Your task to perform on an android device: Open maps Image 0: 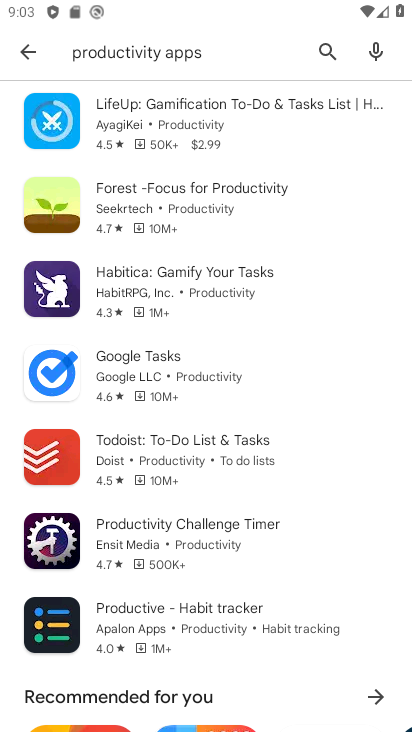
Step 0: press home button
Your task to perform on an android device: Open maps Image 1: 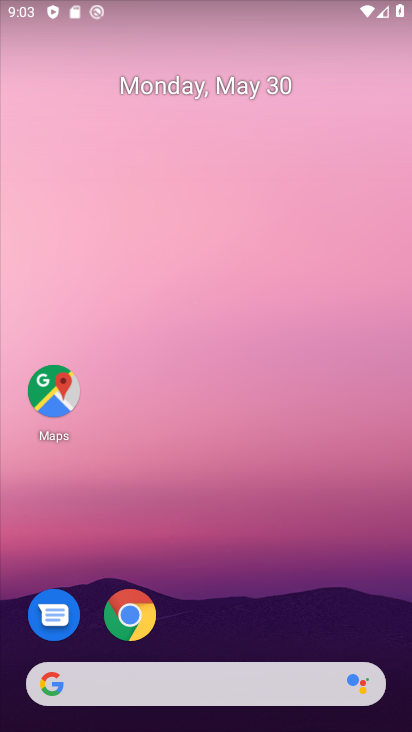
Step 1: click (47, 384)
Your task to perform on an android device: Open maps Image 2: 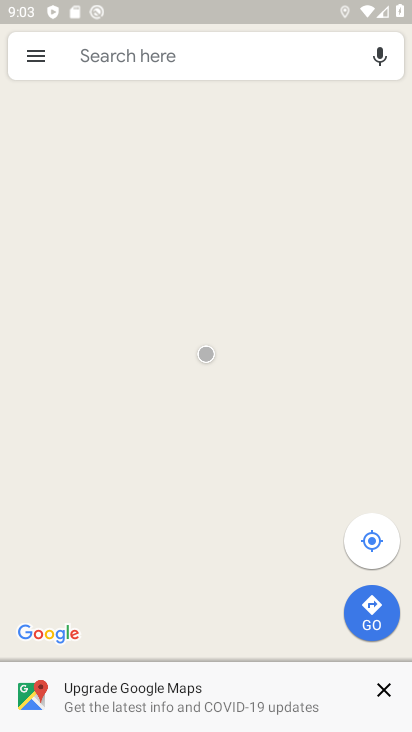
Step 2: click (146, 45)
Your task to perform on an android device: Open maps Image 3: 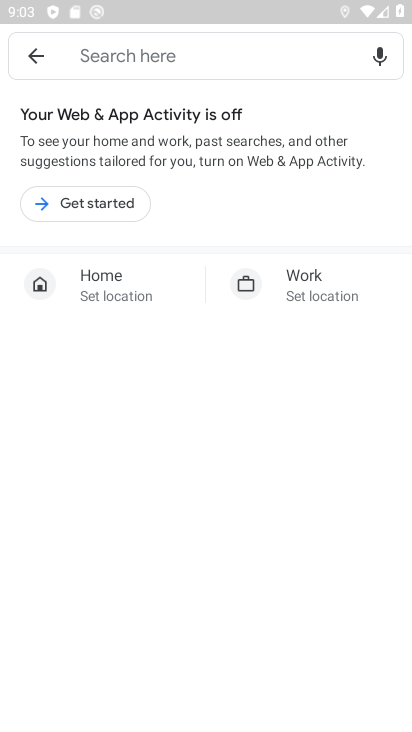
Step 3: task complete